Your task to perform on an android device: Open Google Maps and go to "Timeline" Image 0: 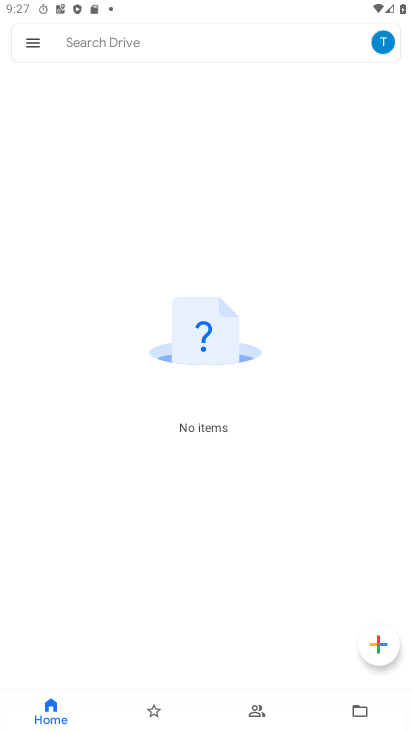
Step 0: press home button
Your task to perform on an android device: Open Google Maps and go to "Timeline" Image 1: 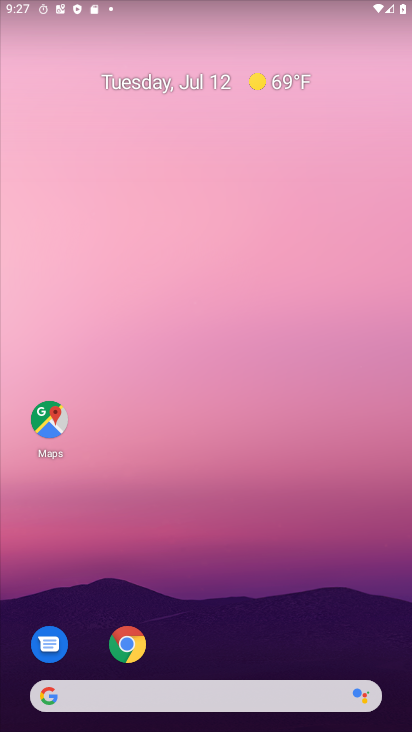
Step 1: drag from (212, 653) to (232, 15)
Your task to perform on an android device: Open Google Maps and go to "Timeline" Image 2: 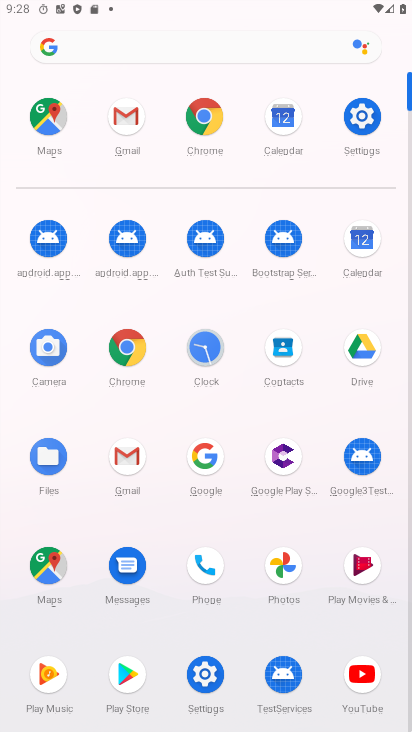
Step 2: click (47, 557)
Your task to perform on an android device: Open Google Maps and go to "Timeline" Image 3: 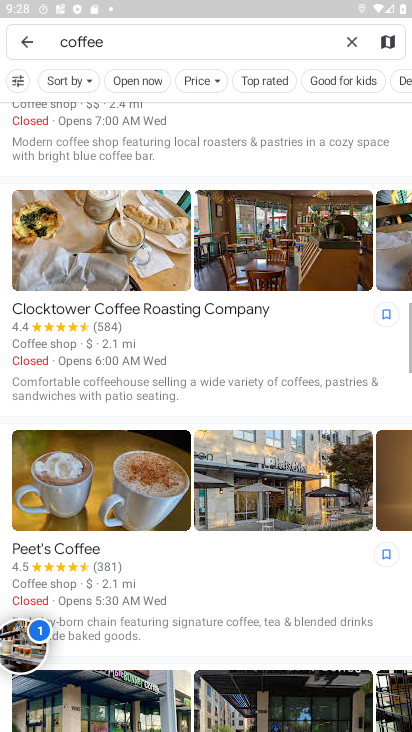
Step 3: click (31, 42)
Your task to perform on an android device: Open Google Maps and go to "Timeline" Image 4: 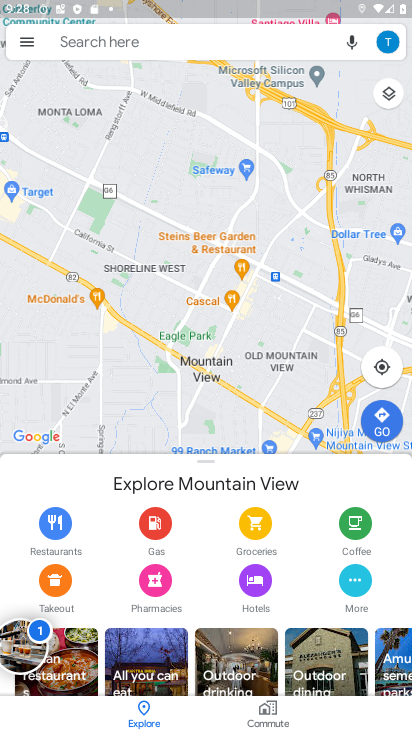
Step 4: click (24, 46)
Your task to perform on an android device: Open Google Maps and go to "Timeline" Image 5: 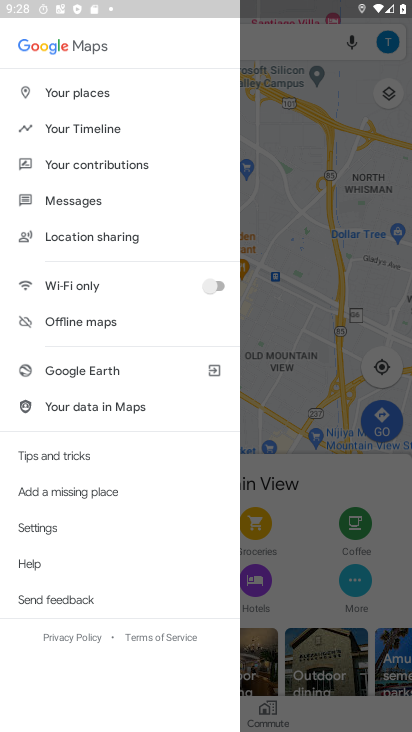
Step 5: click (63, 126)
Your task to perform on an android device: Open Google Maps and go to "Timeline" Image 6: 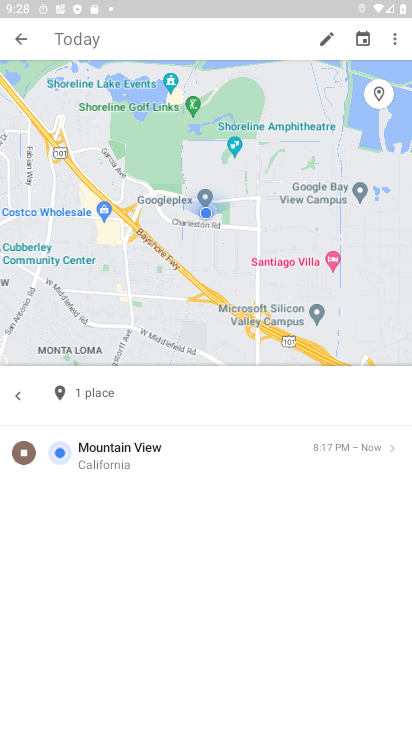
Step 6: task complete